Your task to perform on an android device: Open the web browser Image 0: 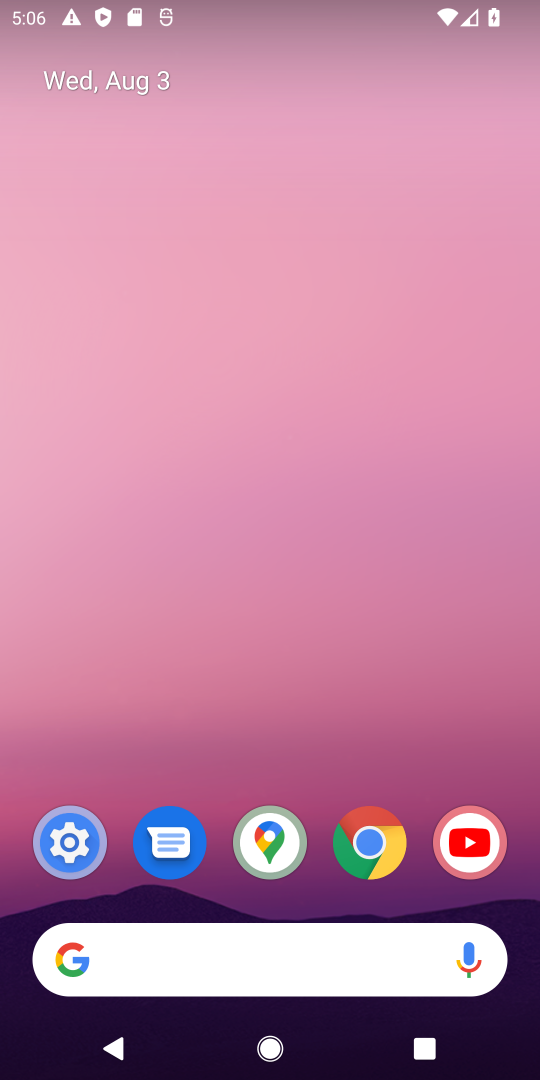
Step 0: click (380, 851)
Your task to perform on an android device: Open the web browser Image 1: 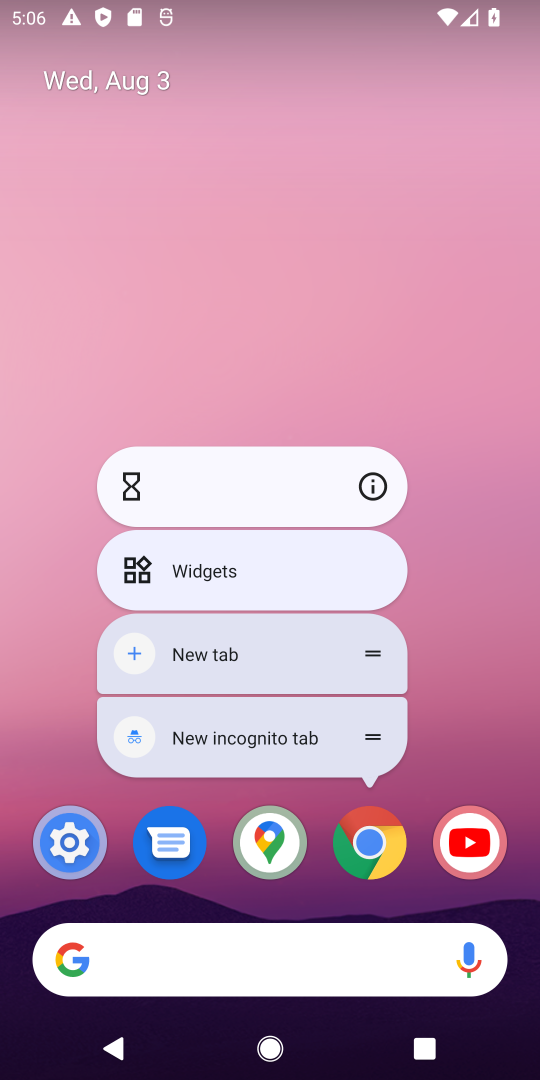
Step 1: click (380, 851)
Your task to perform on an android device: Open the web browser Image 2: 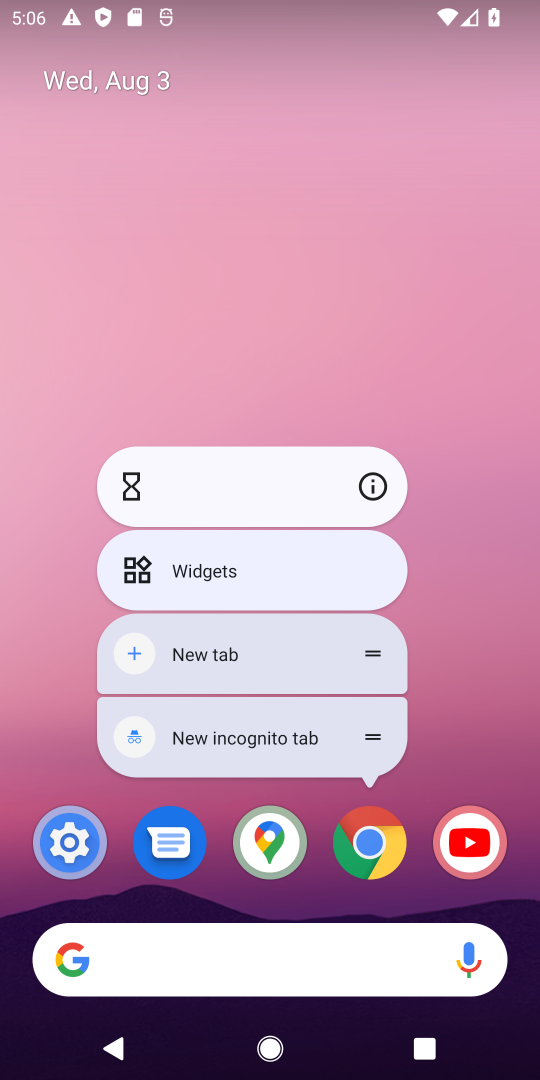
Step 2: click (375, 858)
Your task to perform on an android device: Open the web browser Image 3: 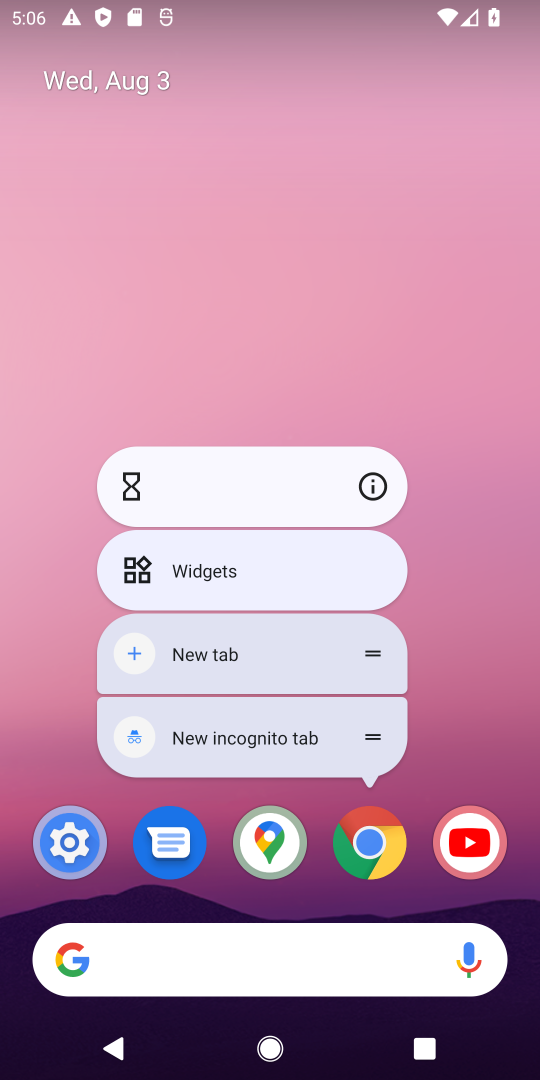
Step 3: click (375, 858)
Your task to perform on an android device: Open the web browser Image 4: 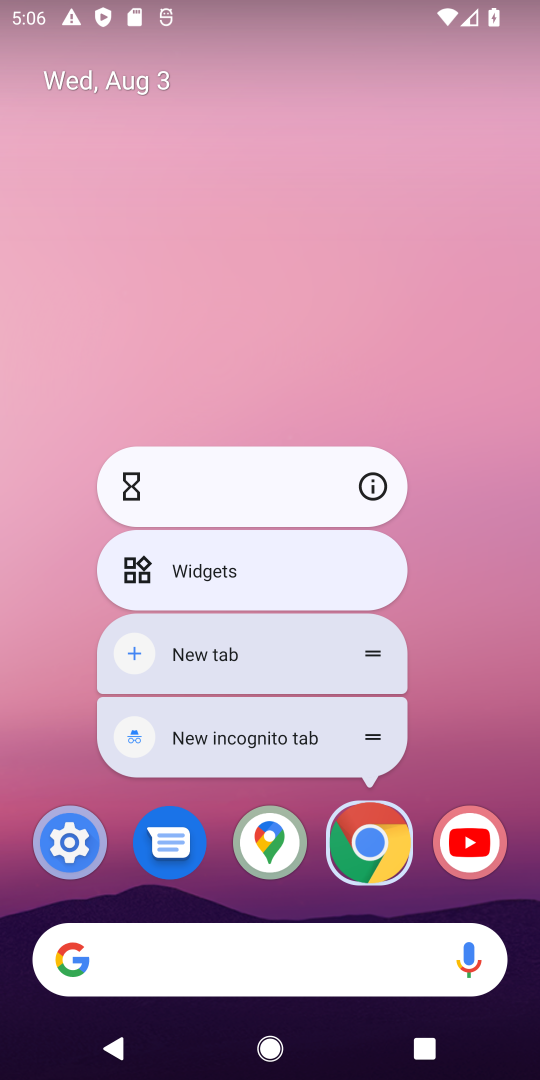
Step 4: click (375, 858)
Your task to perform on an android device: Open the web browser Image 5: 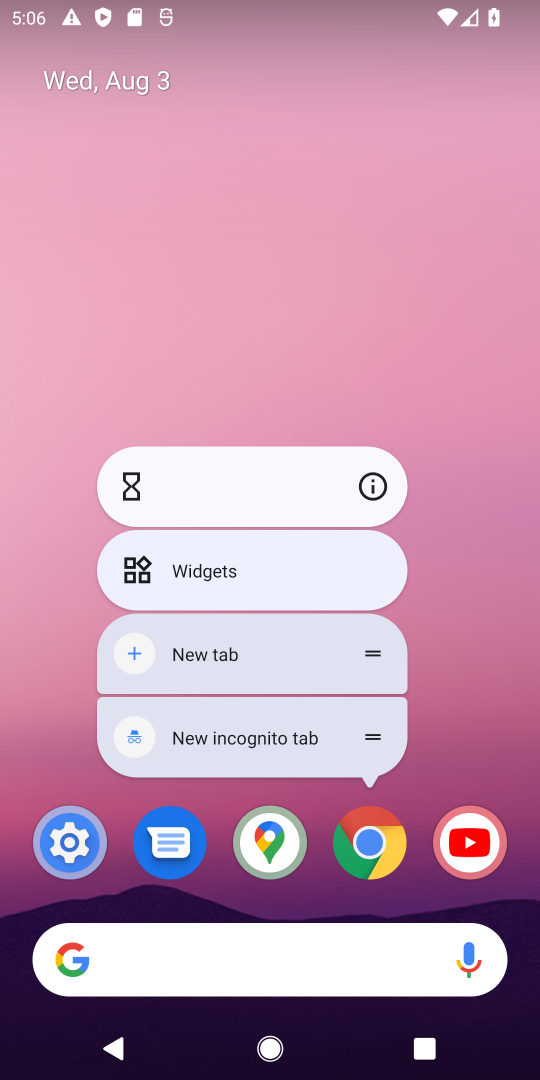
Step 5: click (366, 832)
Your task to perform on an android device: Open the web browser Image 6: 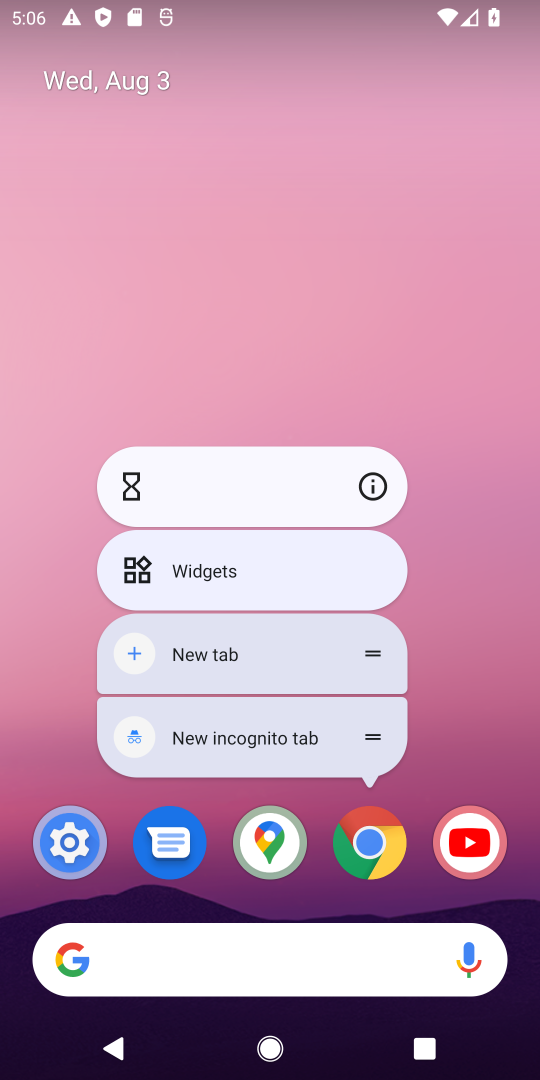
Step 6: click (366, 839)
Your task to perform on an android device: Open the web browser Image 7: 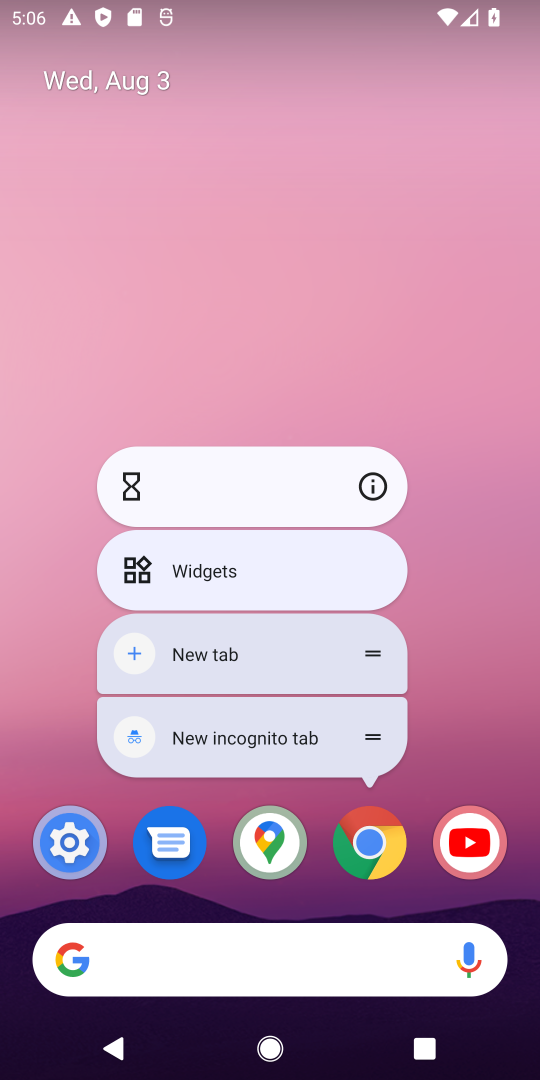
Step 7: click (365, 850)
Your task to perform on an android device: Open the web browser Image 8: 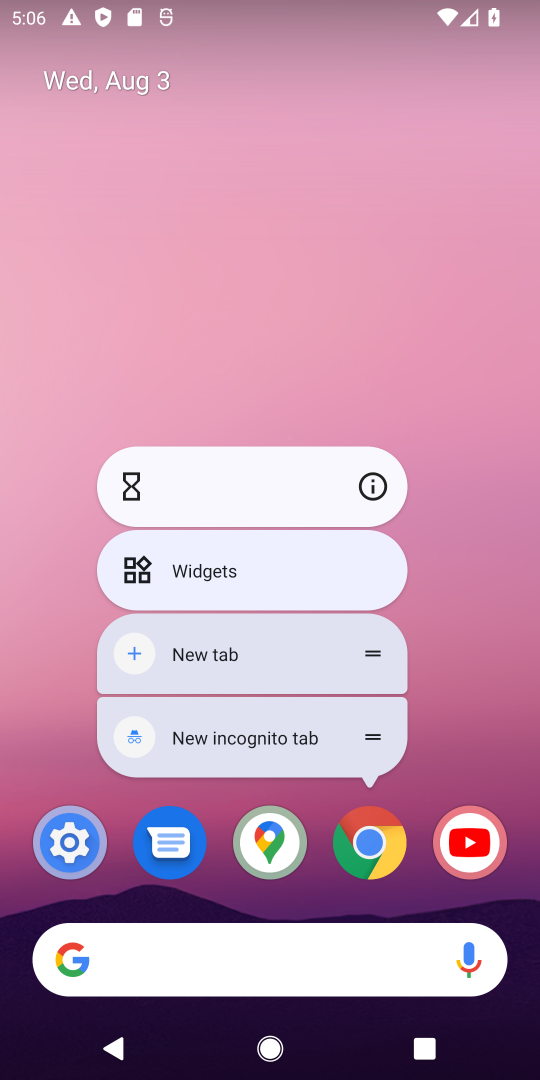
Step 8: click (365, 850)
Your task to perform on an android device: Open the web browser Image 9: 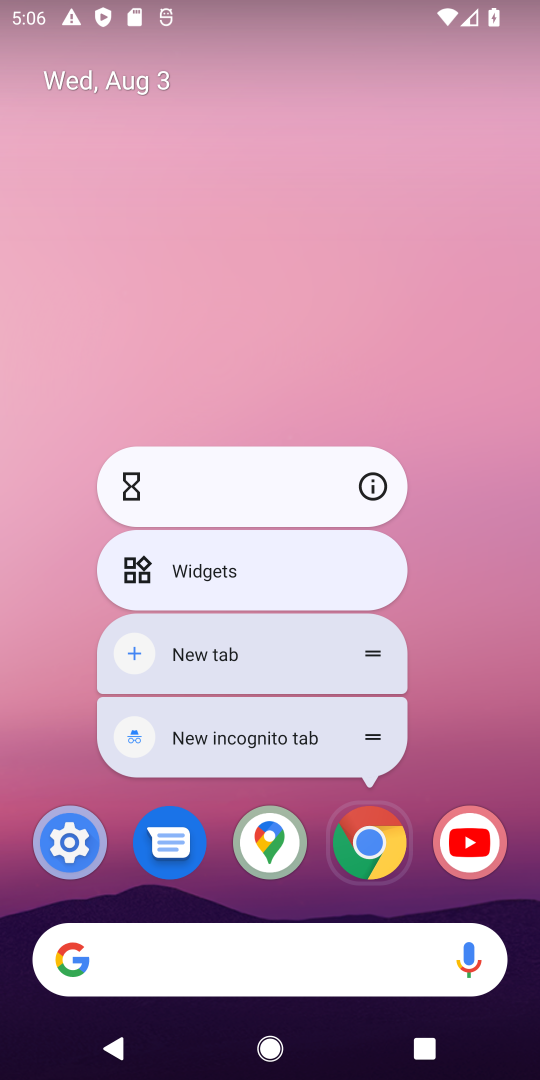
Step 9: click (365, 850)
Your task to perform on an android device: Open the web browser Image 10: 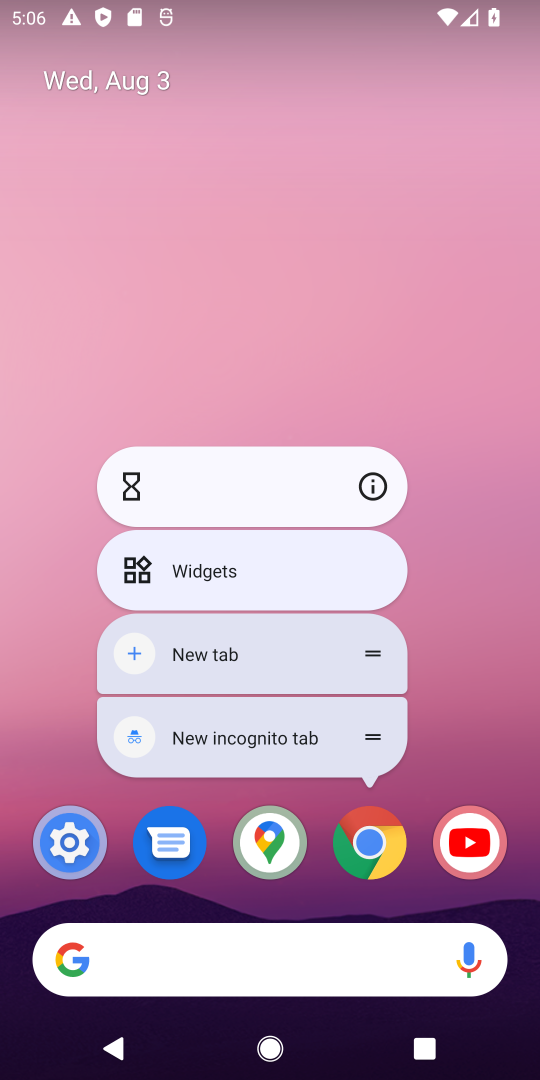
Step 10: click (365, 850)
Your task to perform on an android device: Open the web browser Image 11: 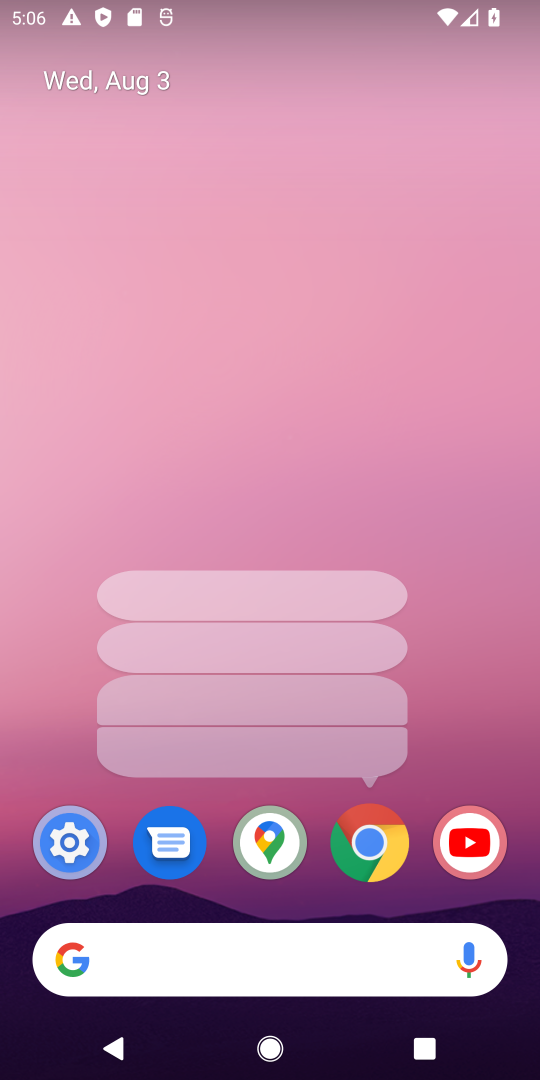
Step 11: click (365, 850)
Your task to perform on an android device: Open the web browser Image 12: 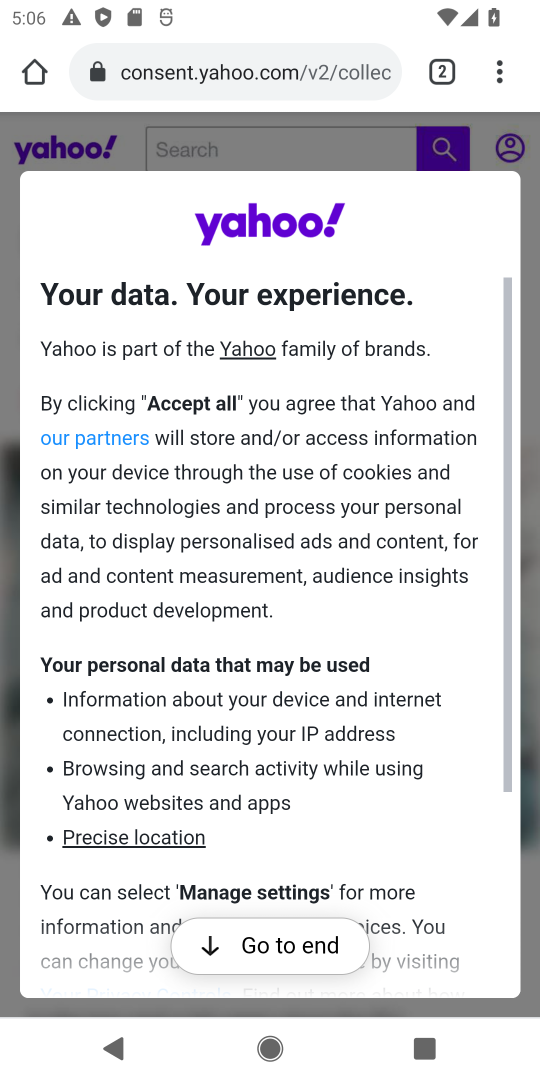
Step 12: task complete